Your task to perform on an android device: Go to sound settings Image 0: 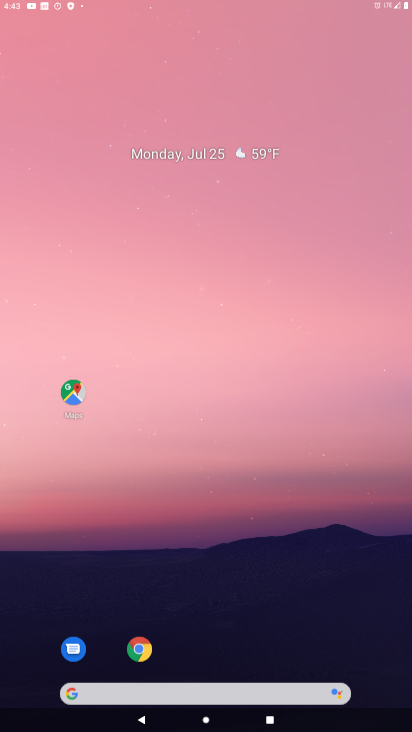
Step 0: click (269, 128)
Your task to perform on an android device: Go to sound settings Image 1: 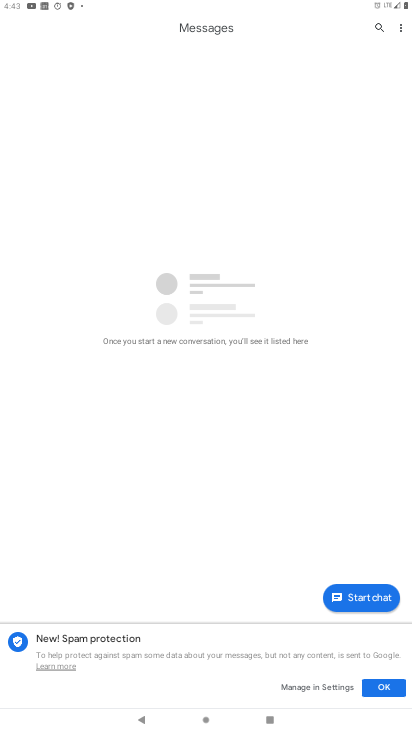
Step 1: press home button
Your task to perform on an android device: Go to sound settings Image 2: 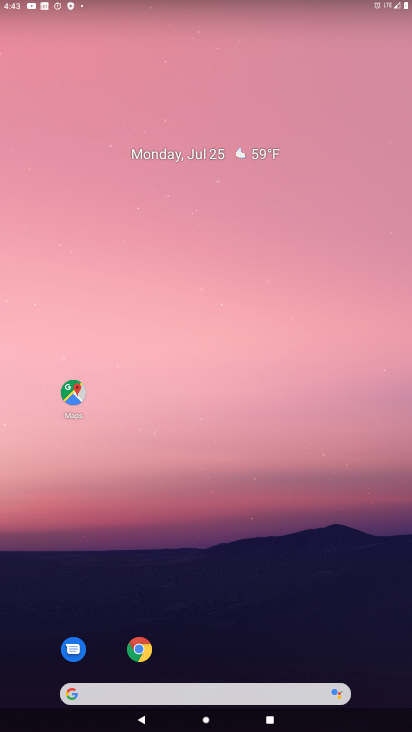
Step 2: drag from (230, 596) to (210, 15)
Your task to perform on an android device: Go to sound settings Image 3: 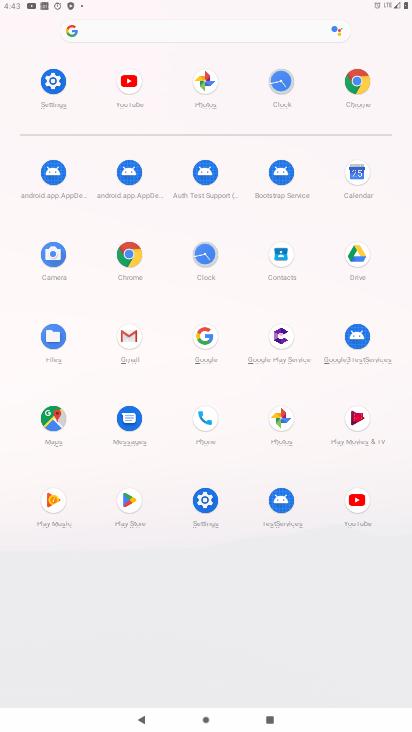
Step 3: click (49, 84)
Your task to perform on an android device: Go to sound settings Image 4: 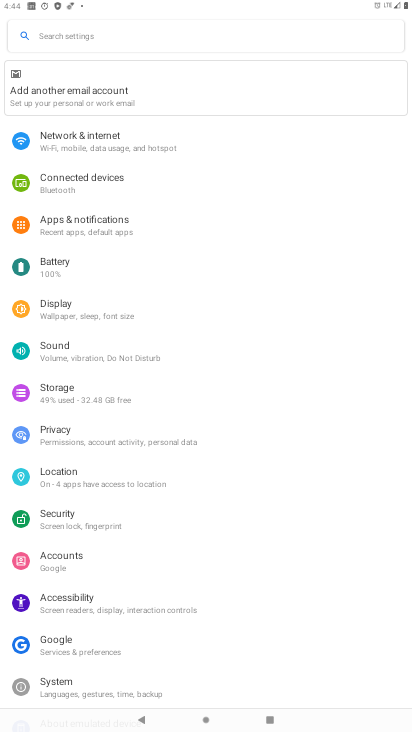
Step 4: click (94, 350)
Your task to perform on an android device: Go to sound settings Image 5: 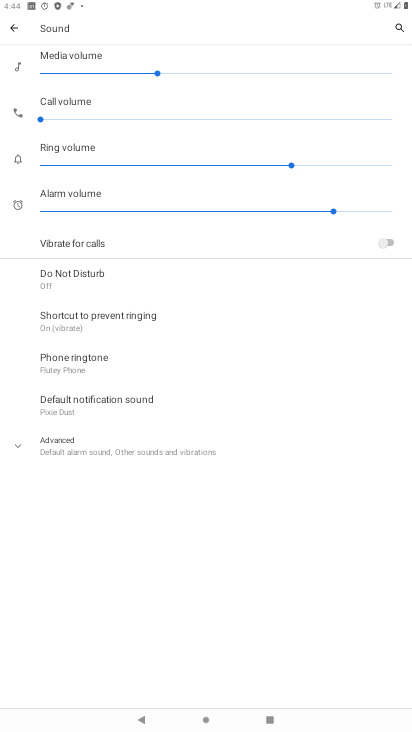
Step 5: task complete